Your task to perform on an android device: turn on location history Image 0: 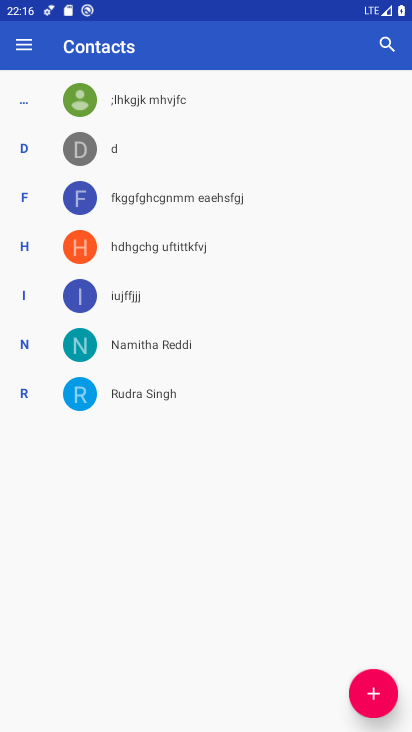
Step 0: press home button
Your task to perform on an android device: turn on location history Image 1: 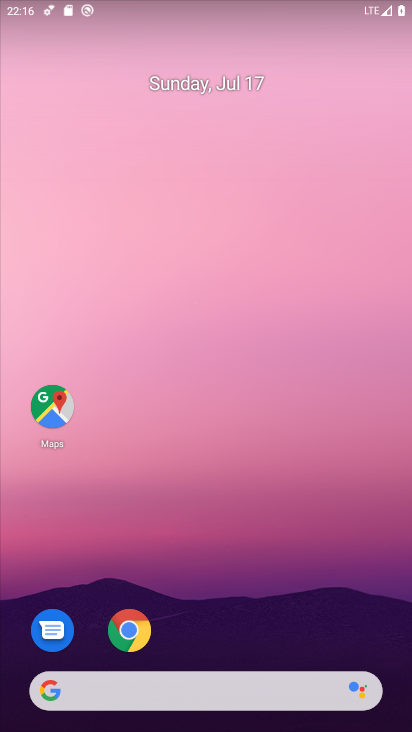
Step 1: drag from (226, 643) to (145, 9)
Your task to perform on an android device: turn on location history Image 2: 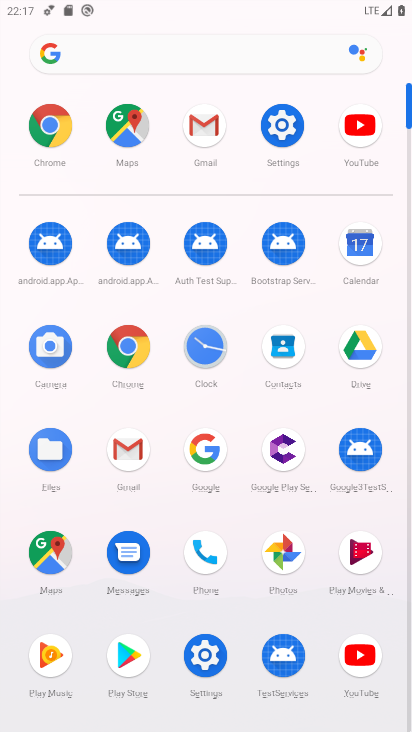
Step 2: click (198, 660)
Your task to perform on an android device: turn on location history Image 3: 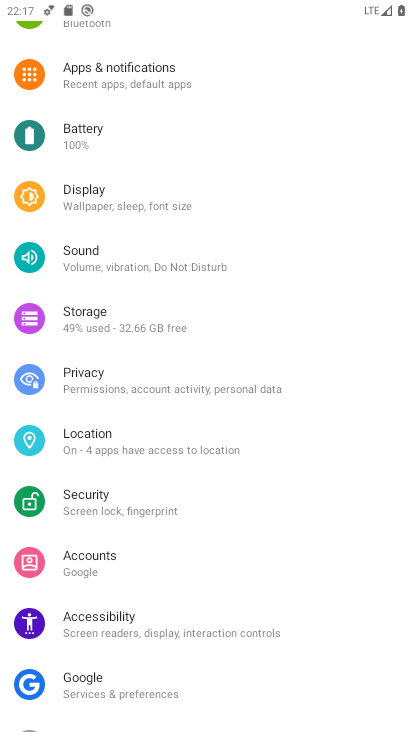
Step 3: click (122, 446)
Your task to perform on an android device: turn on location history Image 4: 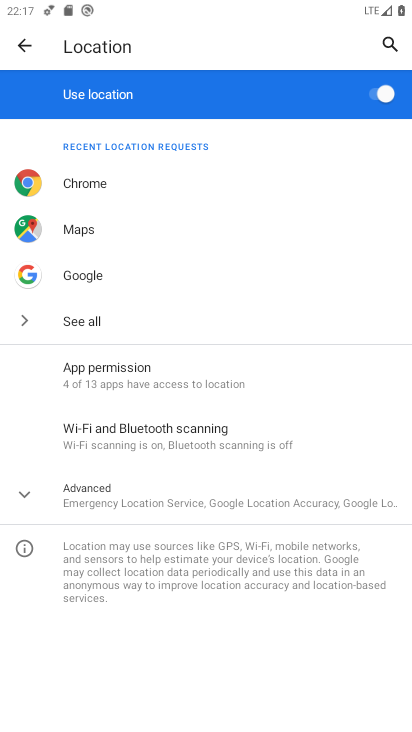
Step 4: click (186, 515)
Your task to perform on an android device: turn on location history Image 5: 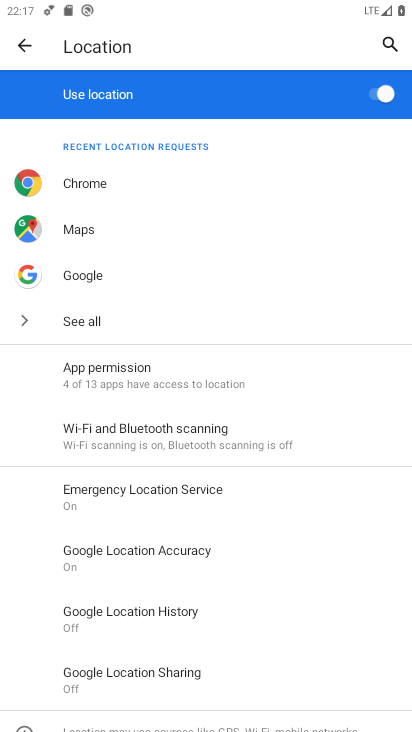
Step 5: click (155, 626)
Your task to perform on an android device: turn on location history Image 6: 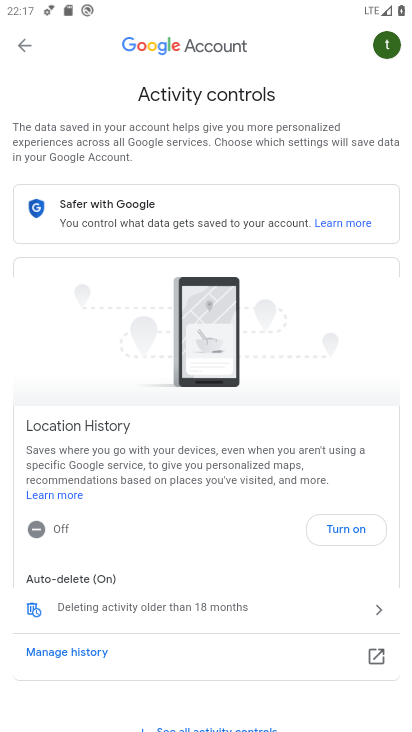
Step 6: click (343, 530)
Your task to perform on an android device: turn on location history Image 7: 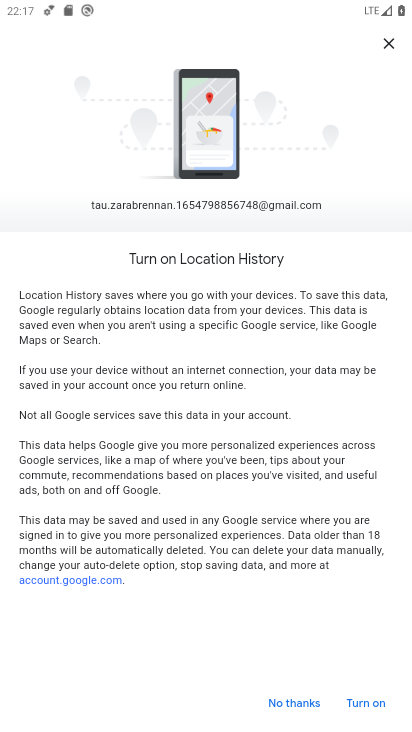
Step 7: click (369, 705)
Your task to perform on an android device: turn on location history Image 8: 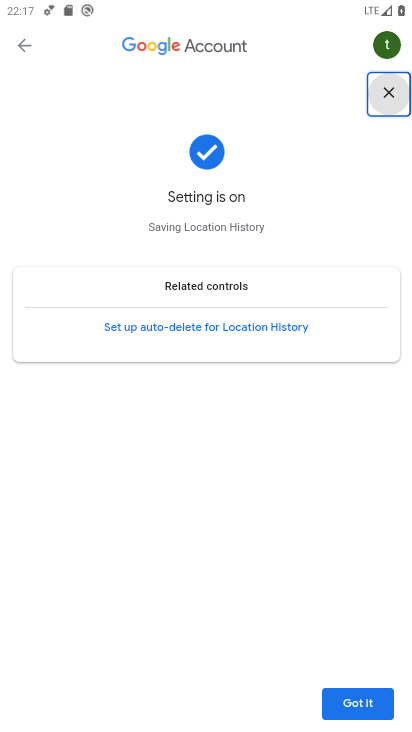
Step 8: click (345, 701)
Your task to perform on an android device: turn on location history Image 9: 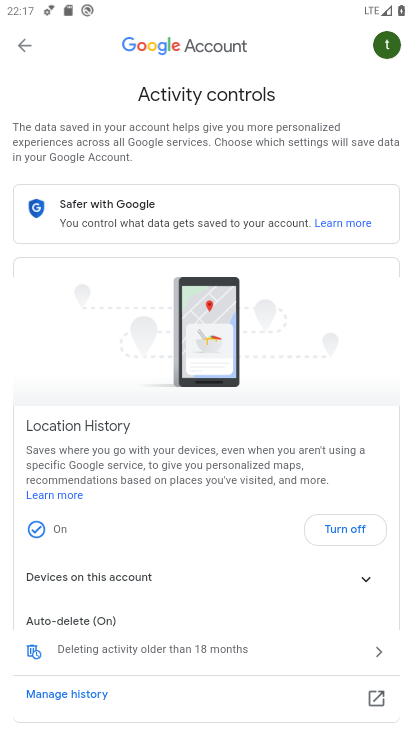
Step 9: task complete